Your task to perform on an android device: toggle notification dots Image 0: 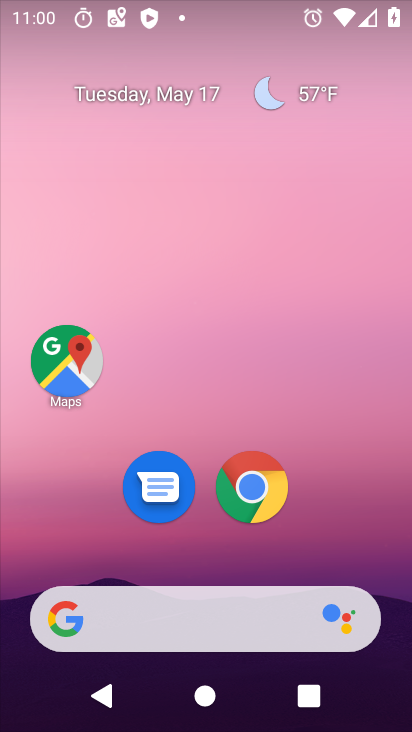
Step 0: drag from (222, 724) to (228, 89)
Your task to perform on an android device: toggle notification dots Image 1: 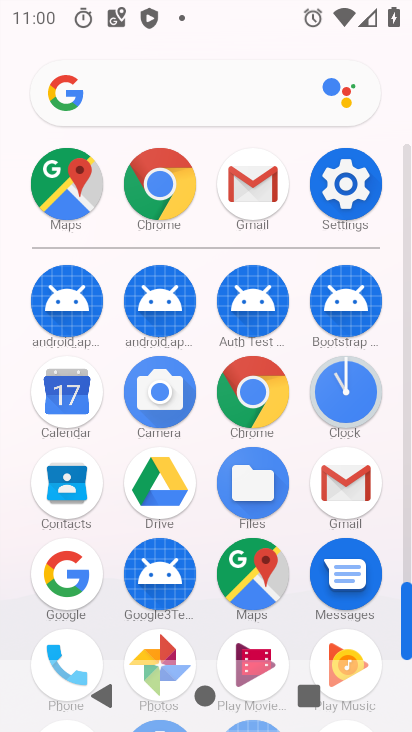
Step 1: click (348, 179)
Your task to perform on an android device: toggle notification dots Image 2: 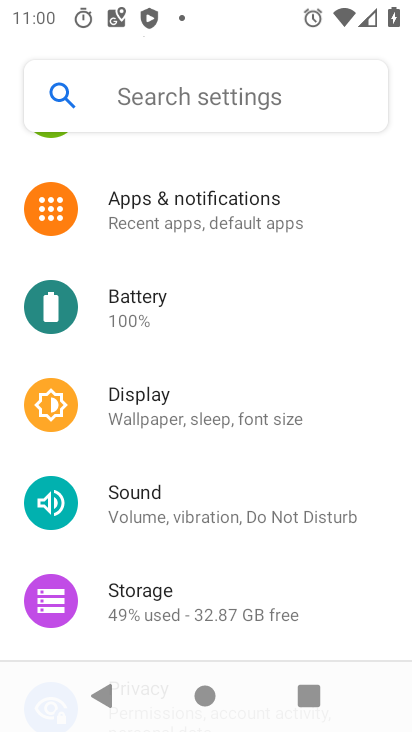
Step 2: click (179, 215)
Your task to perform on an android device: toggle notification dots Image 3: 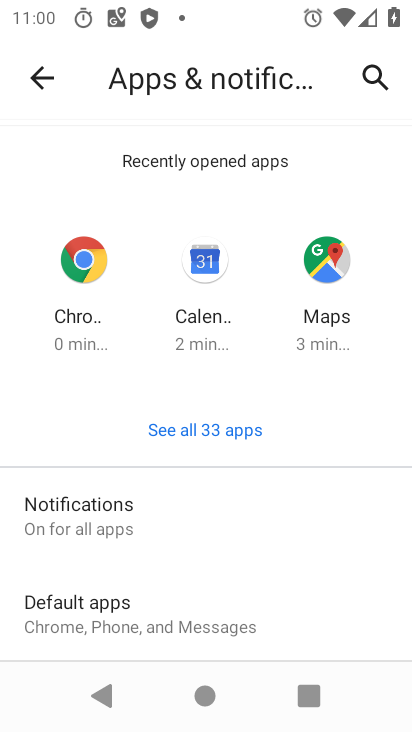
Step 3: click (82, 521)
Your task to perform on an android device: toggle notification dots Image 4: 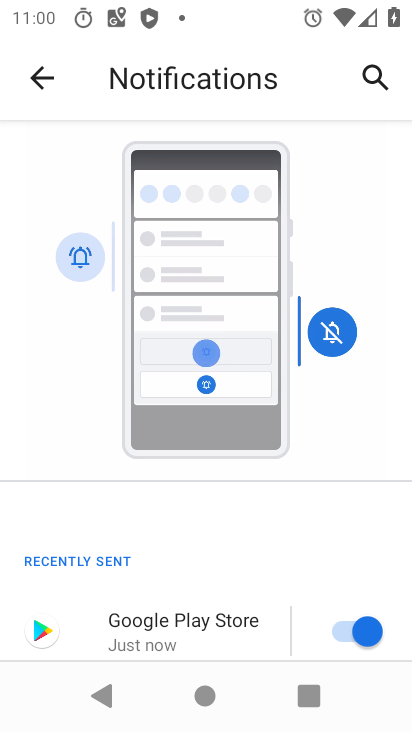
Step 4: drag from (148, 641) to (167, 312)
Your task to perform on an android device: toggle notification dots Image 5: 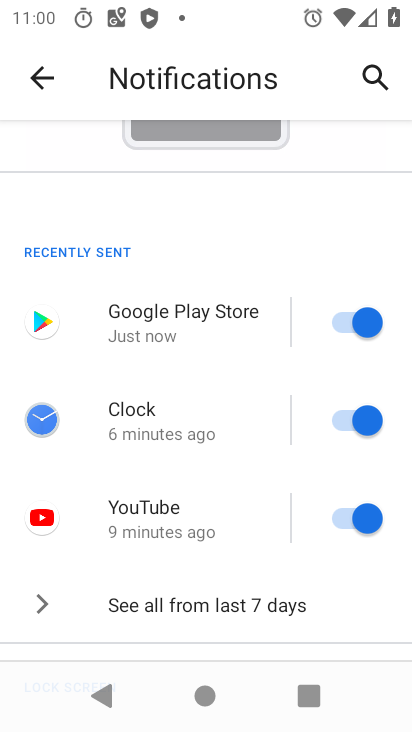
Step 5: drag from (166, 625) to (168, 280)
Your task to perform on an android device: toggle notification dots Image 6: 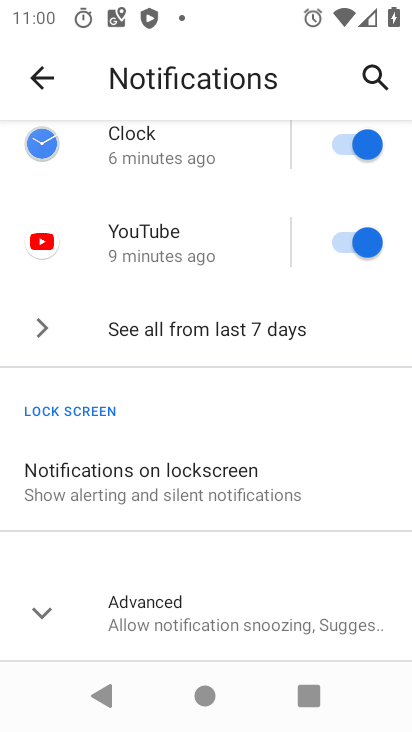
Step 6: click (140, 603)
Your task to perform on an android device: toggle notification dots Image 7: 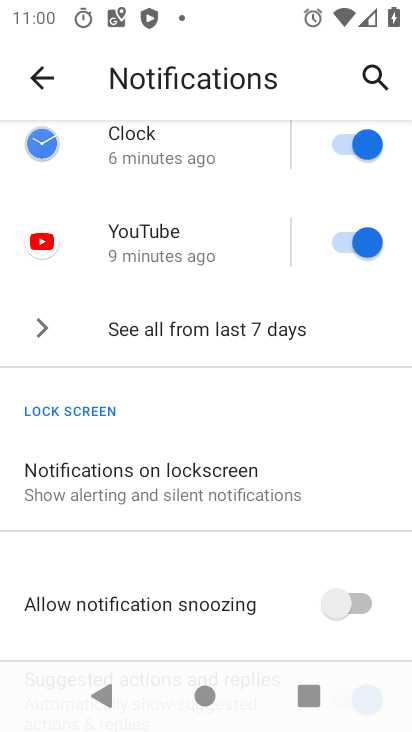
Step 7: drag from (118, 638) to (127, 350)
Your task to perform on an android device: toggle notification dots Image 8: 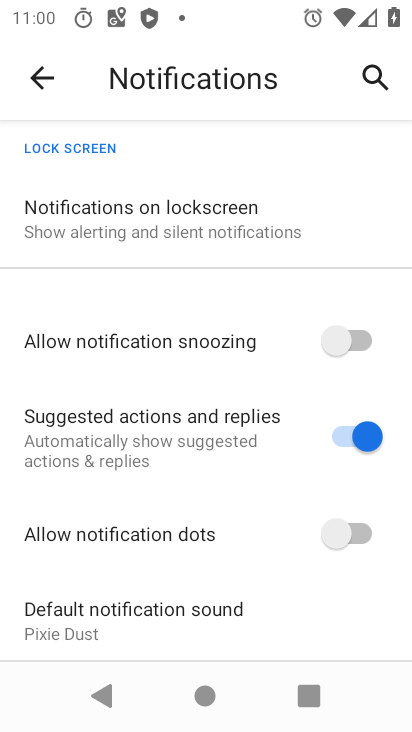
Step 8: click (356, 530)
Your task to perform on an android device: toggle notification dots Image 9: 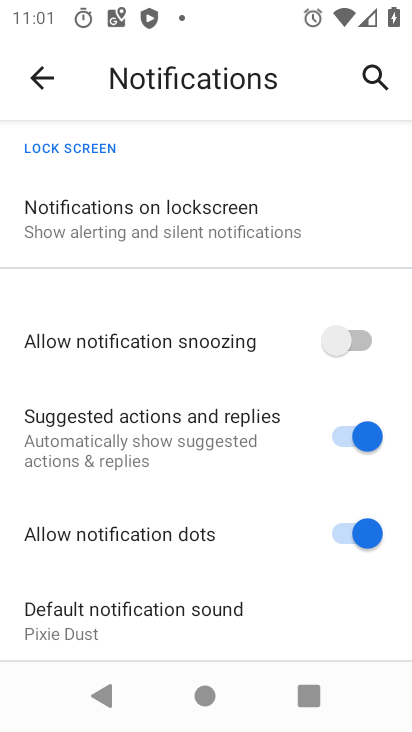
Step 9: task complete